Your task to perform on an android device: turn off wifi Image 0: 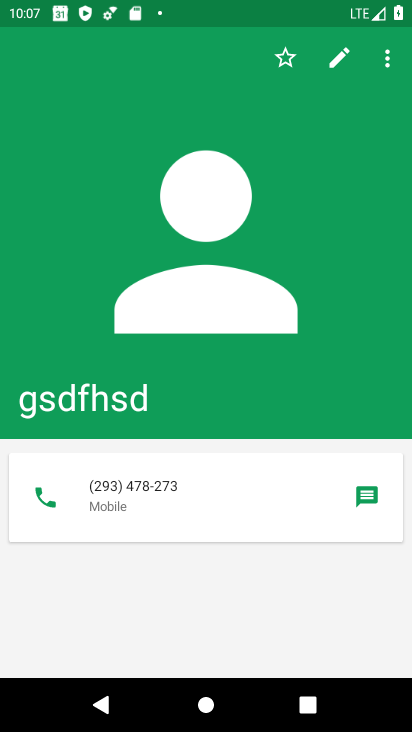
Step 0: press home button
Your task to perform on an android device: turn off wifi Image 1: 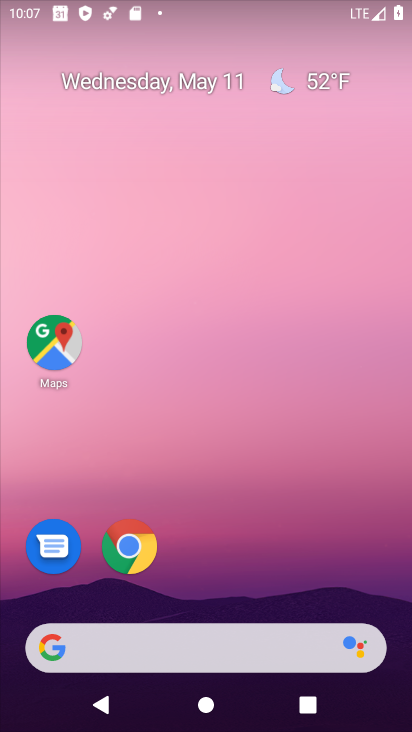
Step 1: drag from (183, 661) to (92, 45)
Your task to perform on an android device: turn off wifi Image 2: 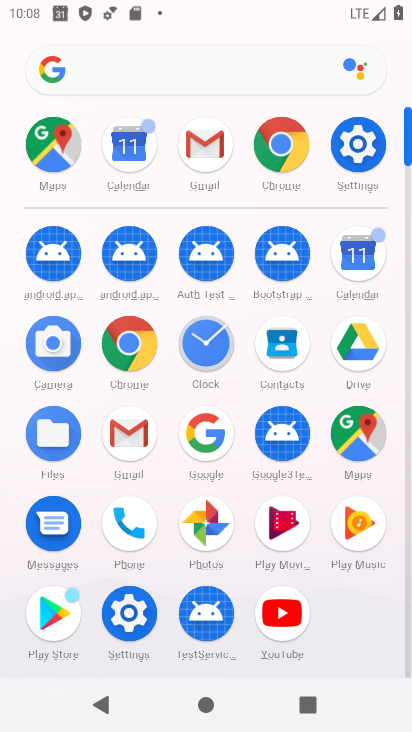
Step 2: click (363, 153)
Your task to perform on an android device: turn off wifi Image 3: 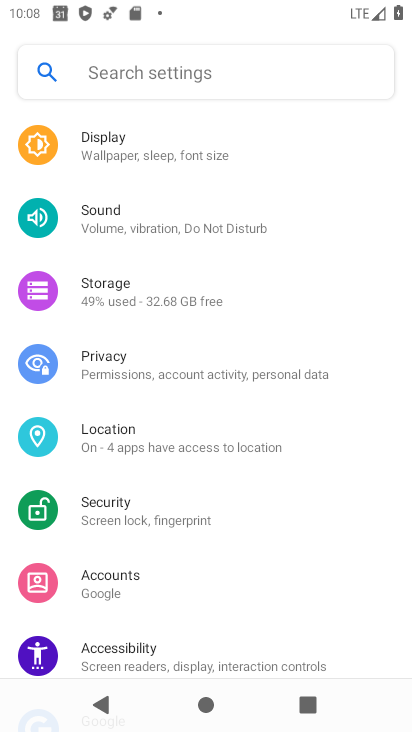
Step 3: drag from (133, 207) to (128, 574)
Your task to perform on an android device: turn off wifi Image 4: 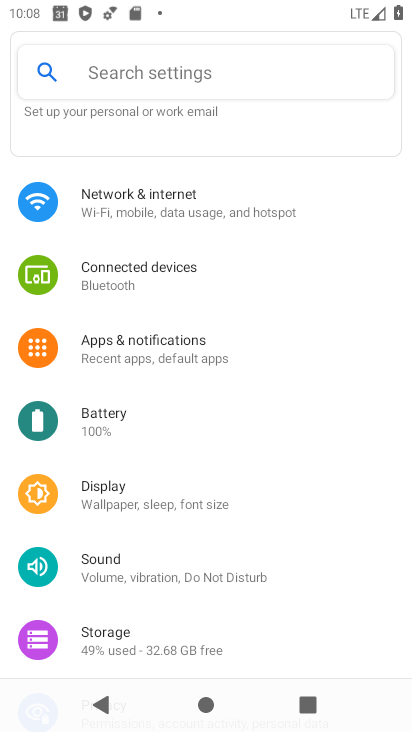
Step 4: click (152, 208)
Your task to perform on an android device: turn off wifi Image 5: 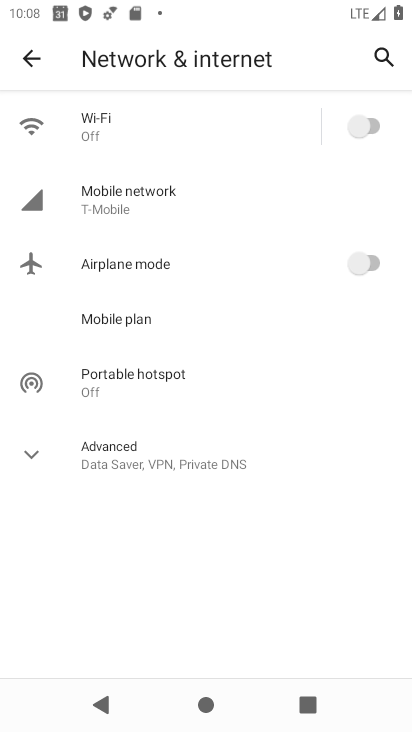
Step 5: task complete